Your task to perform on an android device: allow cookies in the chrome app Image 0: 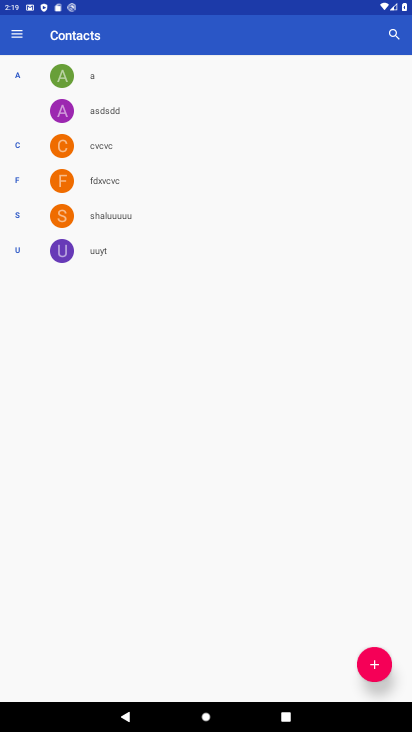
Step 0: press home button
Your task to perform on an android device: allow cookies in the chrome app Image 1: 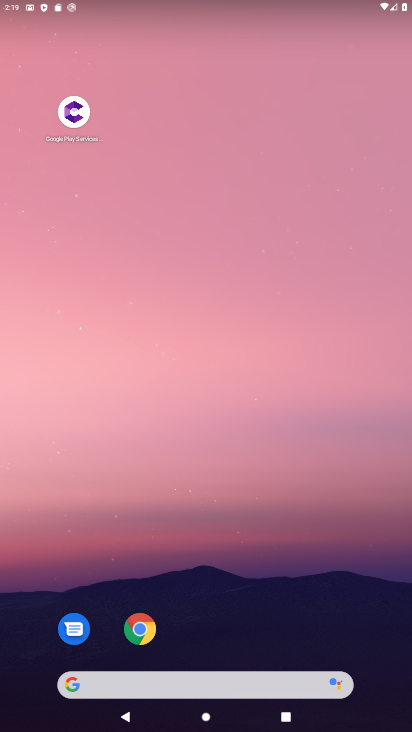
Step 1: click (141, 631)
Your task to perform on an android device: allow cookies in the chrome app Image 2: 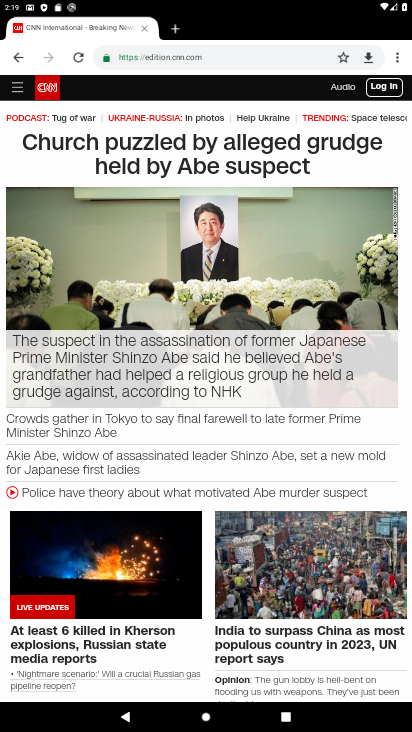
Step 2: click (398, 57)
Your task to perform on an android device: allow cookies in the chrome app Image 3: 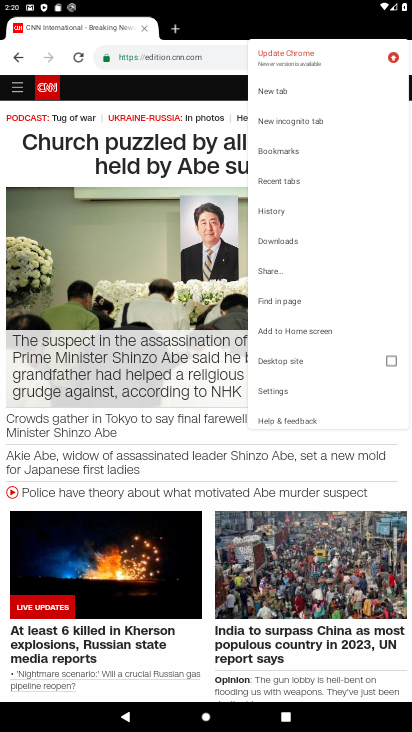
Step 3: click (277, 389)
Your task to perform on an android device: allow cookies in the chrome app Image 4: 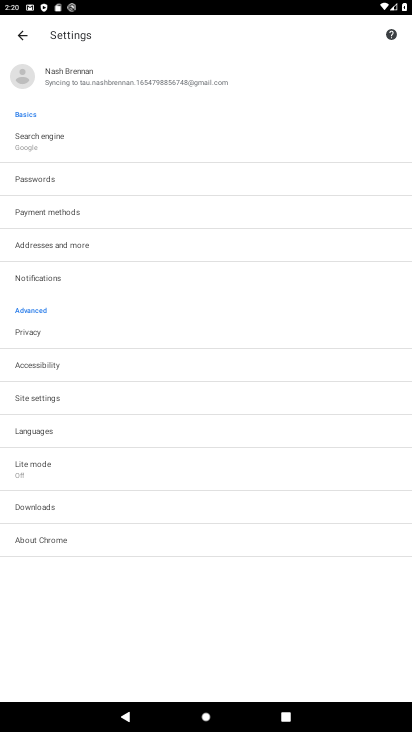
Step 4: click (51, 397)
Your task to perform on an android device: allow cookies in the chrome app Image 5: 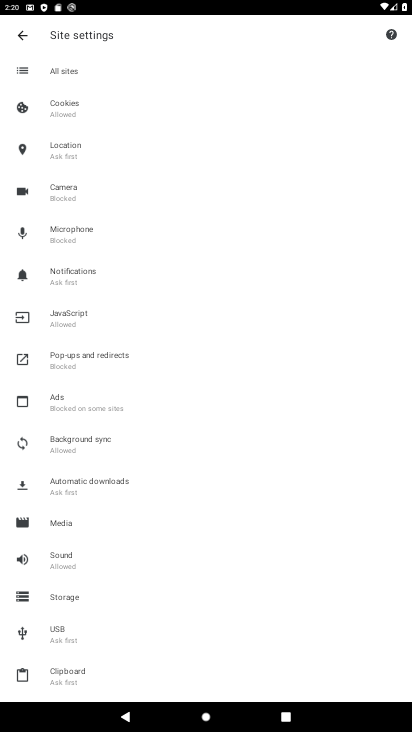
Step 5: click (72, 112)
Your task to perform on an android device: allow cookies in the chrome app Image 6: 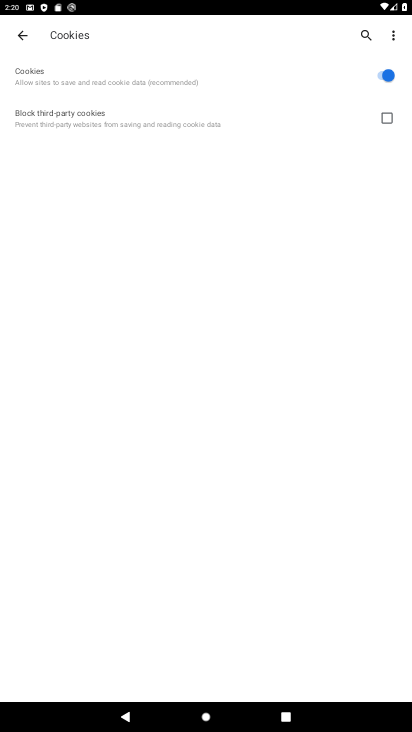
Step 6: click (389, 122)
Your task to perform on an android device: allow cookies in the chrome app Image 7: 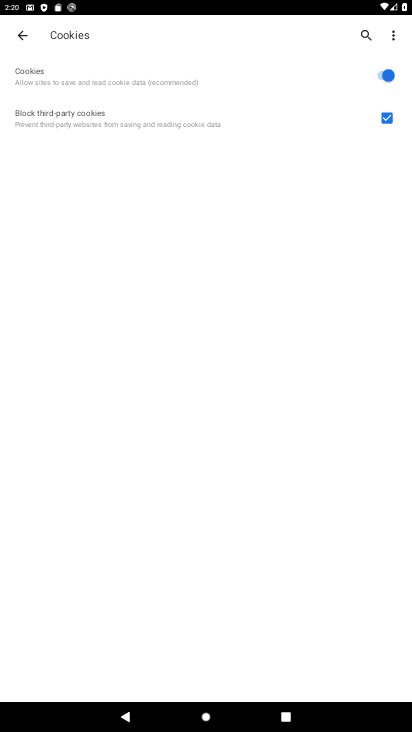
Step 7: task complete